Your task to perform on an android device: Open settings on Google Maps Image 0: 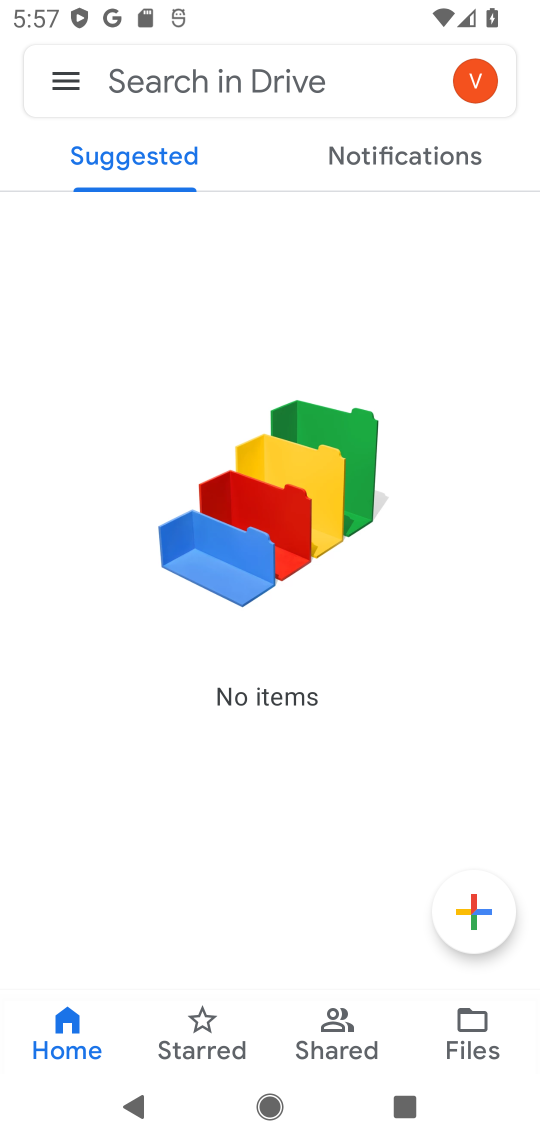
Step 0: press back button
Your task to perform on an android device: Open settings on Google Maps Image 1: 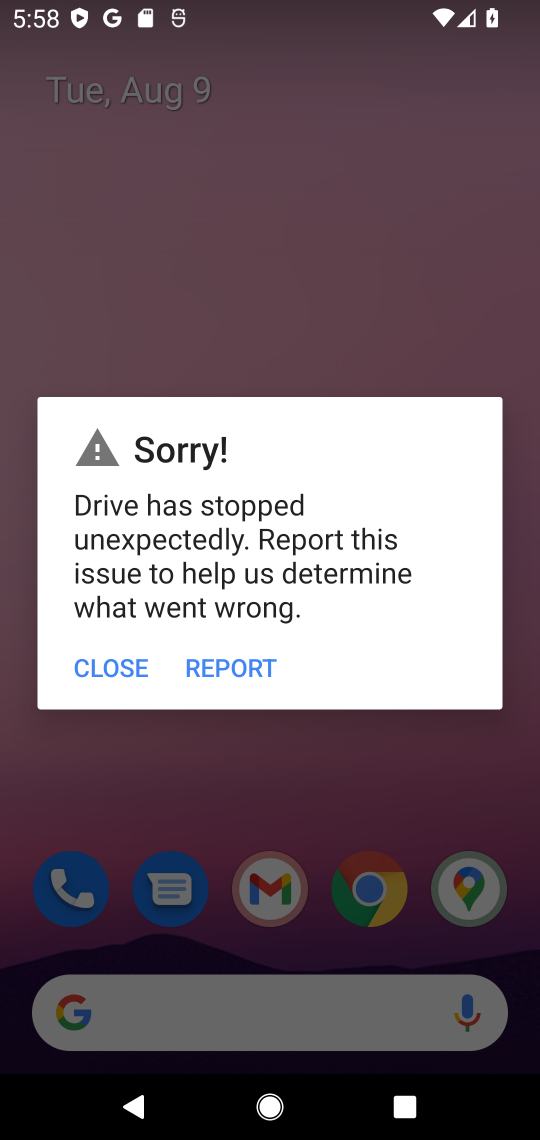
Step 1: click (76, 668)
Your task to perform on an android device: Open settings on Google Maps Image 2: 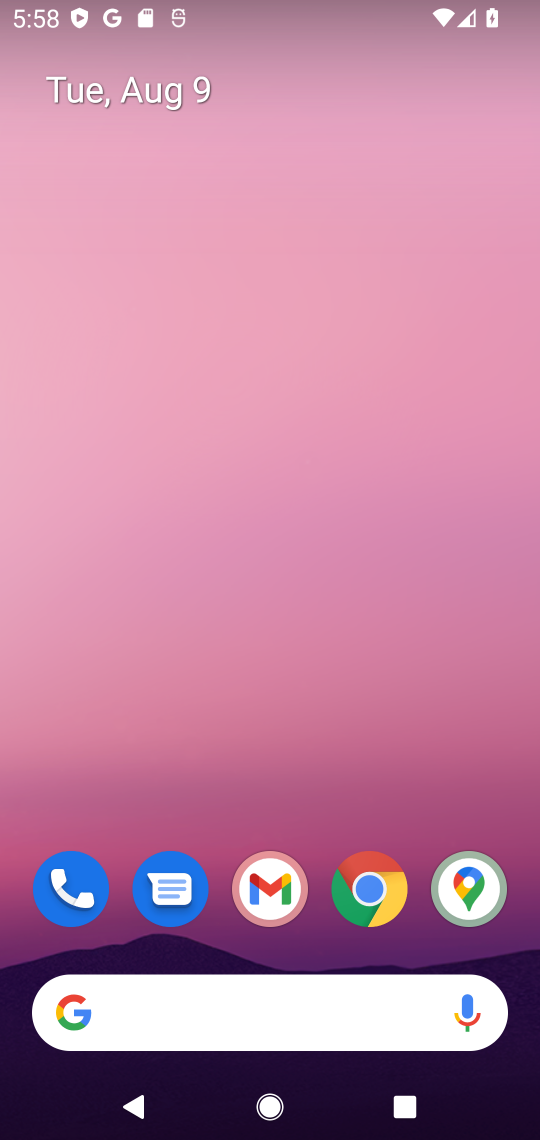
Step 2: drag from (282, 981) to (223, 234)
Your task to perform on an android device: Open settings on Google Maps Image 3: 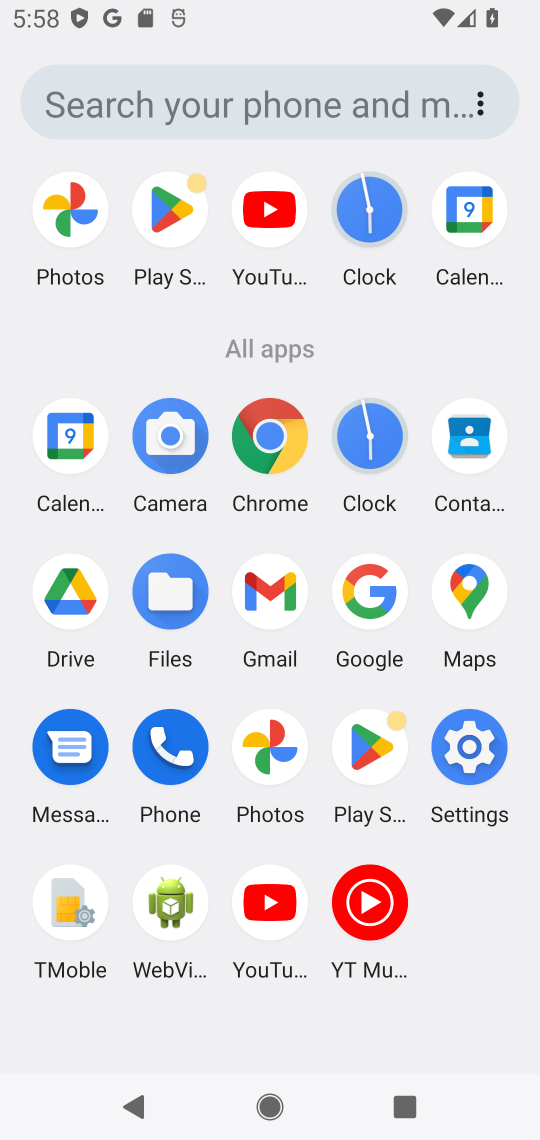
Step 3: click (488, 573)
Your task to perform on an android device: Open settings on Google Maps Image 4: 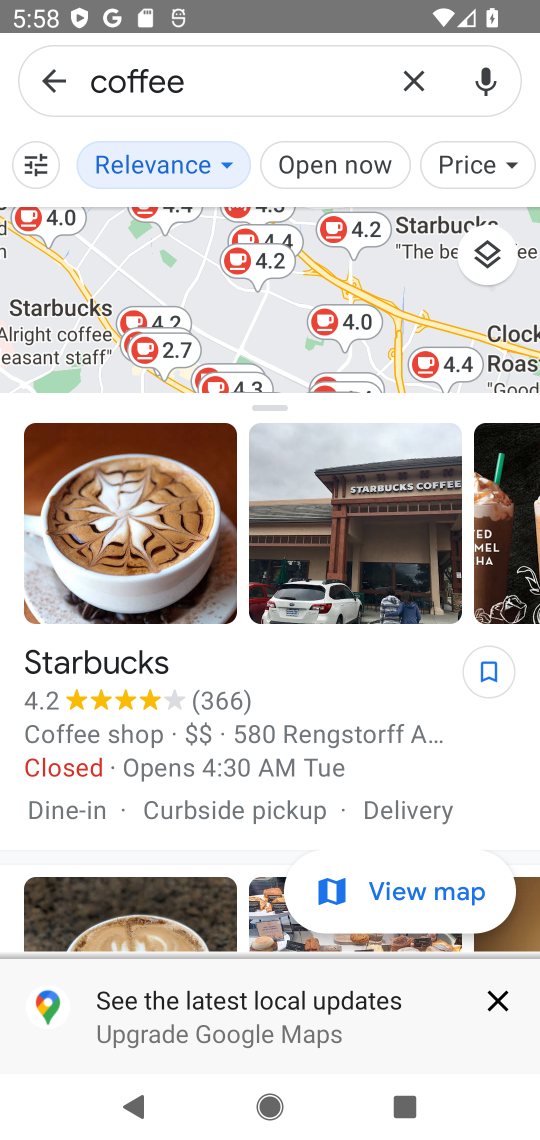
Step 4: click (91, 81)
Your task to perform on an android device: Open settings on Google Maps Image 5: 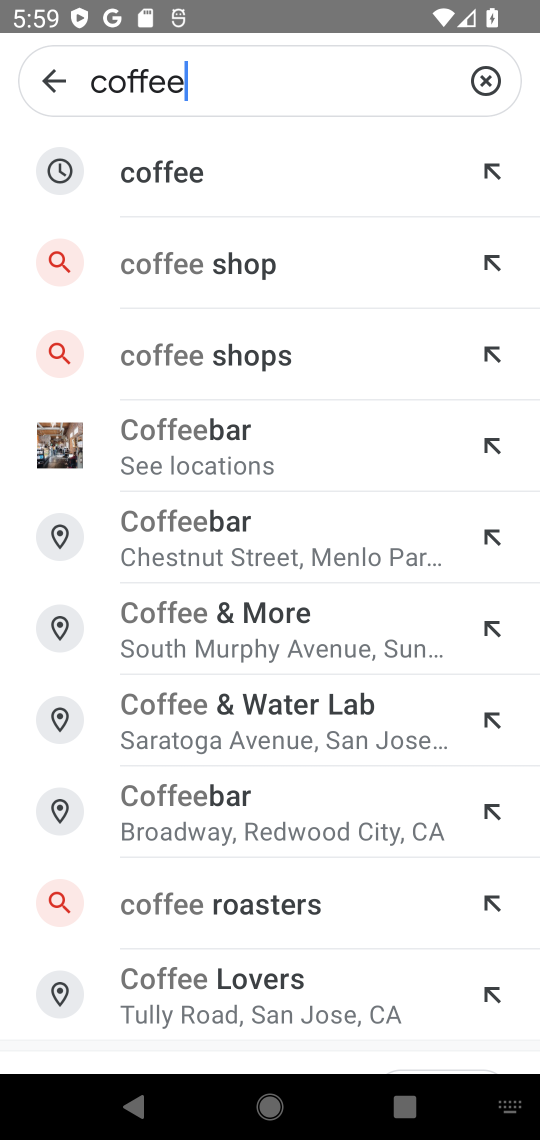
Step 5: click (56, 88)
Your task to perform on an android device: Open settings on Google Maps Image 6: 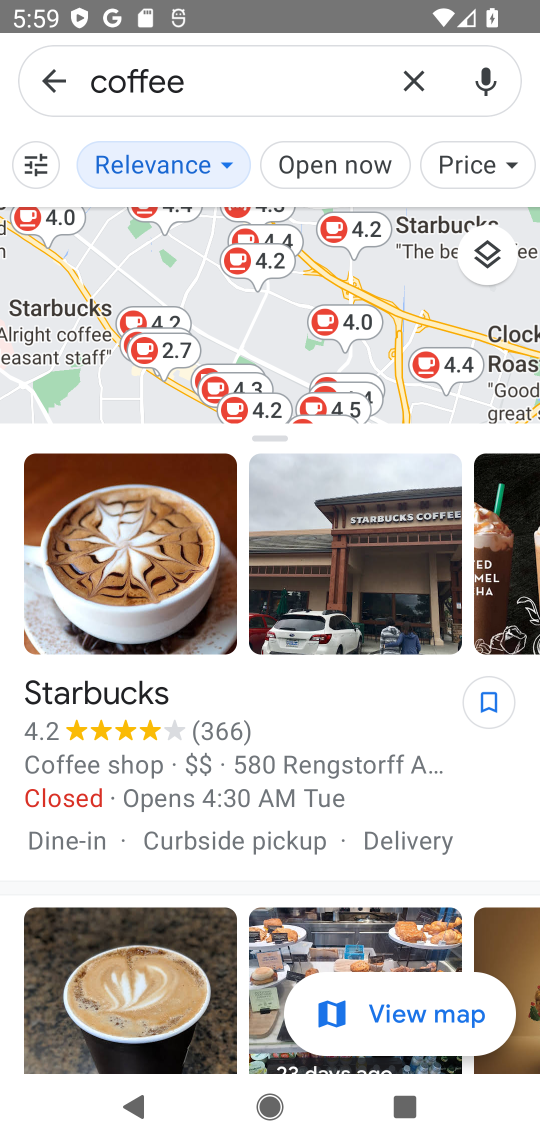
Step 6: click (56, 84)
Your task to perform on an android device: Open settings on Google Maps Image 7: 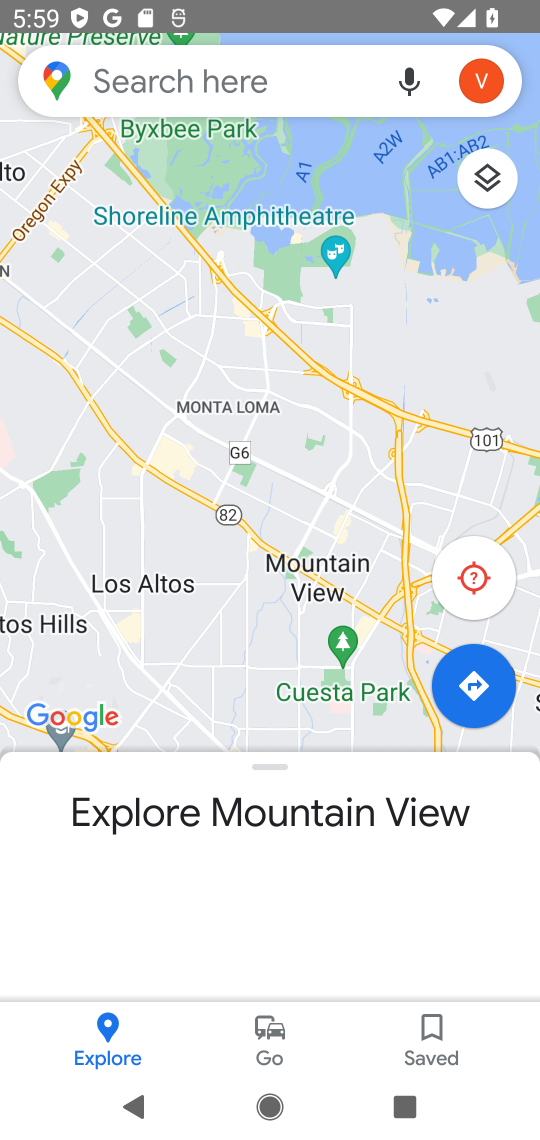
Step 7: click (487, 89)
Your task to perform on an android device: Open settings on Google Maps Image 8: 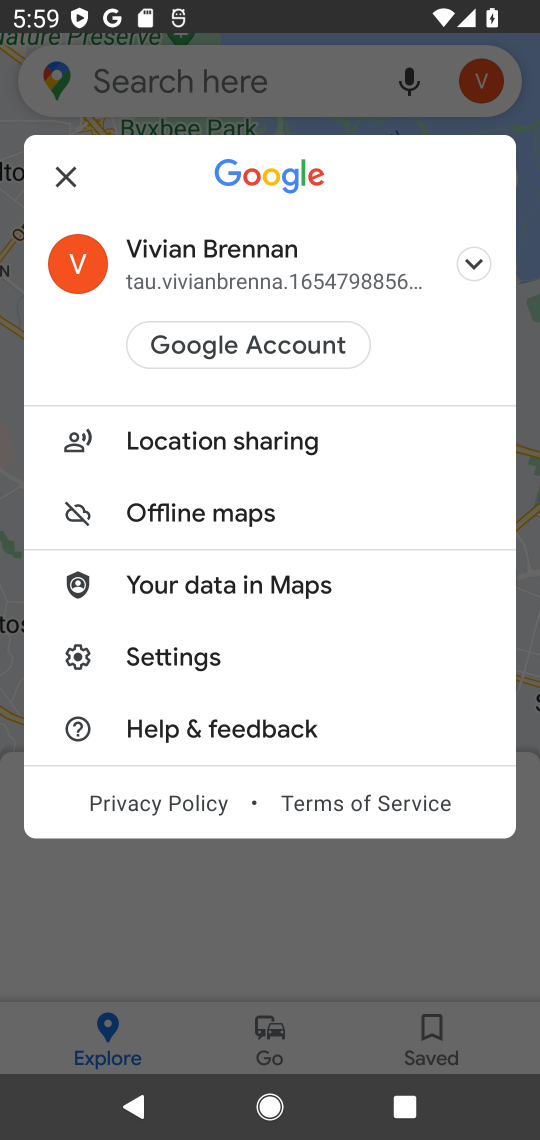
Step 8: click (172, 664)
Your task to perform on an android device: Open settings on Google Maps Image 9: 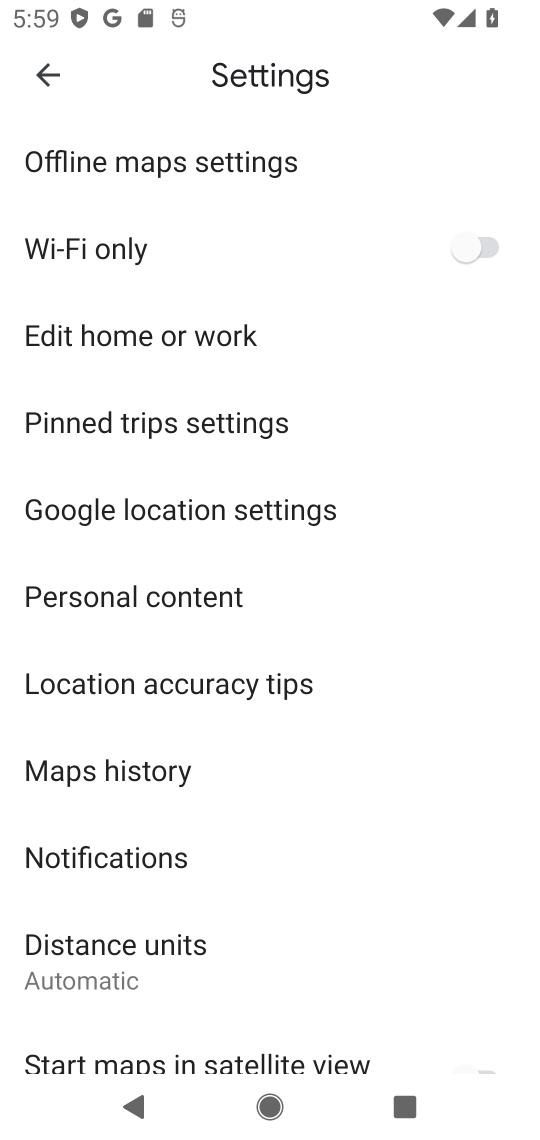
Step 9: task complete